Your task to perform on an android device: View the shopping cart on newegg. Search for "jbl charge 4" on newegg, select the first entry, add it to the cart, then select checkout. Image 0: 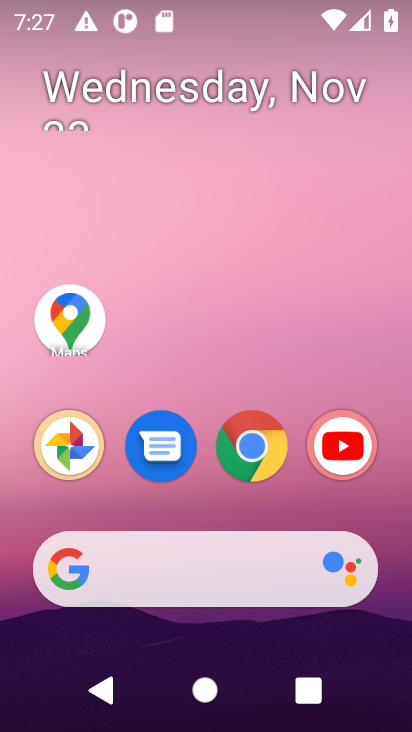
Step 0: click (289, 532)
Your task to perform on an android device: View the shopping cart on newegg. Search for "jbl charge 4" on newegg, select the first entry, add it to the cart, then select checkout. Image 1: 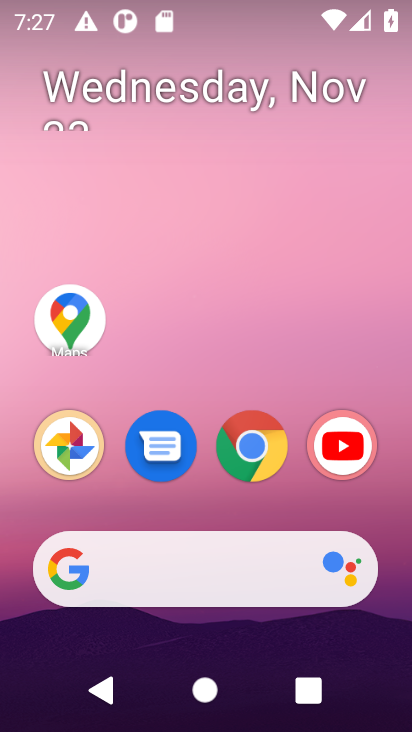
Step 1: click (243, 552)
Your task to perform on an android device: View the shopping cart on newegg. Search for "jbl charge 4" on newegg, select the first entry, add it to the cart, then select checkout. Image 2: 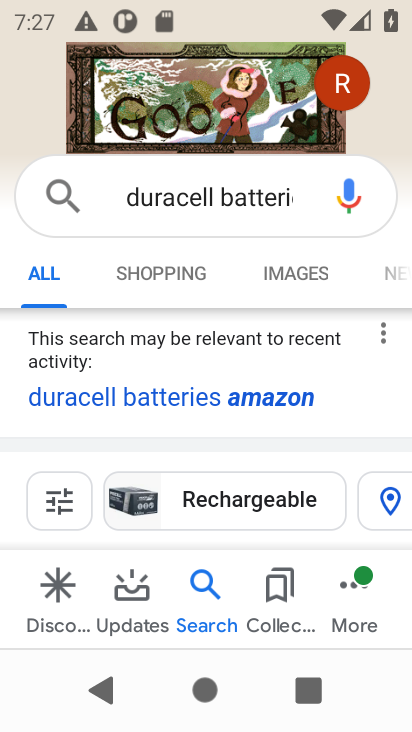
Step 2: type "newegg.com"
Your task to perform on an android device: View the shopping cart on newegg. Search for "jbl charge 4" on newegg, select the first entry, add it to the cart, then select checkout. Image 3: 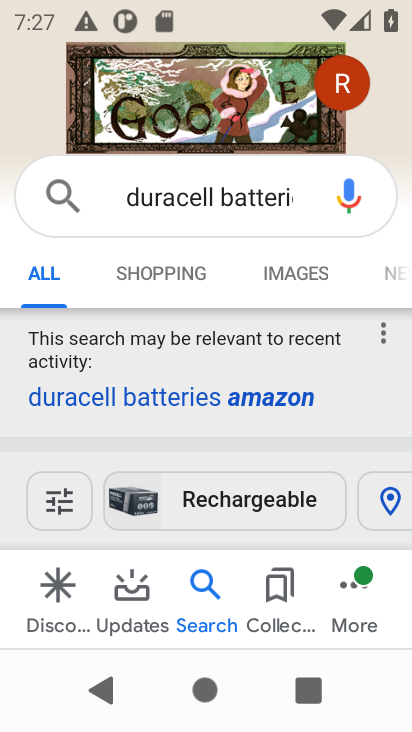
Step 3: click (142, 206)
Your task to perform on an android device: View the shopping cart on newegg. Search for "jbl charge 4" on newegg, select the first entry, add it to the cart, then select checkout. Image 4: 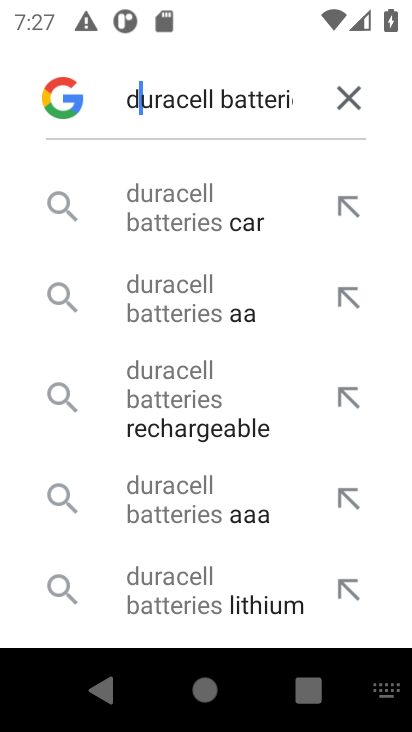
Step 4: type "newegg.com"
Your task to perform on an android device: View the shopping cart on newegg. Search for "jbl charge 4" on newegg, select the first entry, add it to the cart, then select checkout. Image 5: 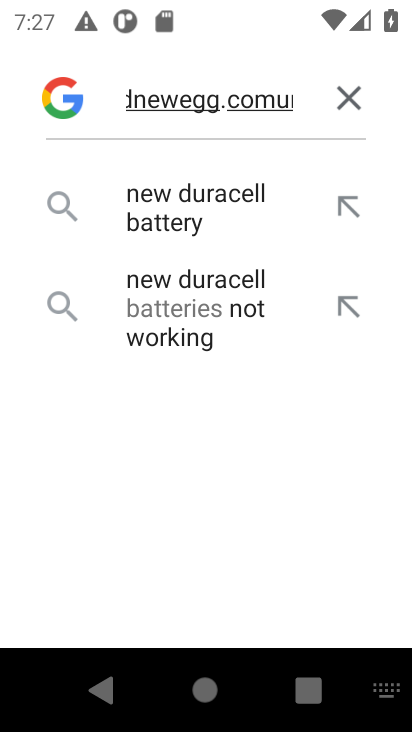
Step 5: click (305, 111)
Your task to perform on an android device: View the shopping cart on newegg. Search for "jbl charge 4" on newegg, select the first entry, add it to the cart, then select checkout. Image 6: 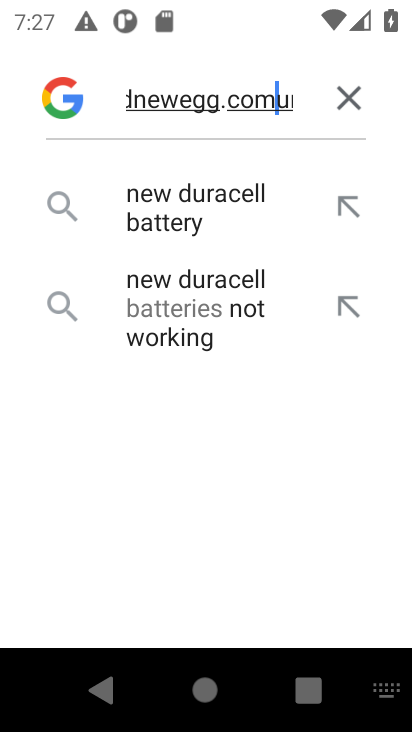
Step 6: task complete